Your task to perform on an android device: open wifi settings Image 0: 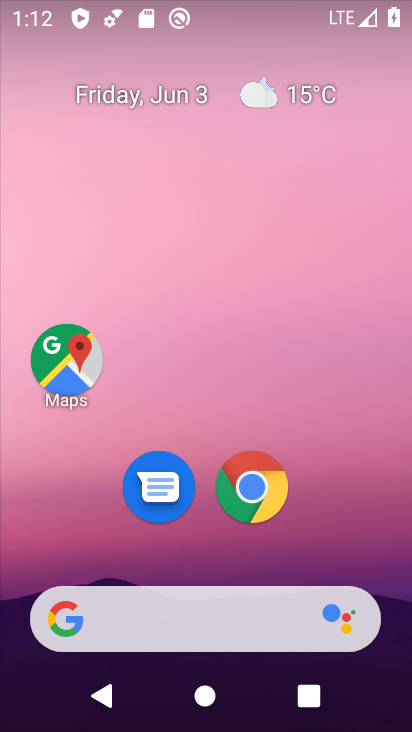
Step 0: drag from (177, 615) to (182, 109)
Your task to perform on an android device: open wifi settings Image 1: 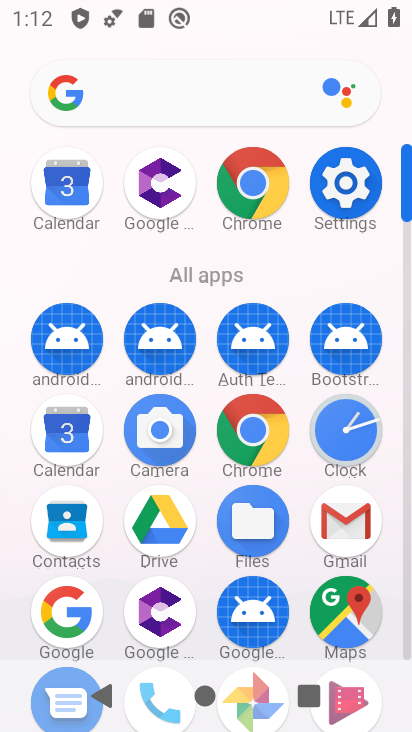
Step 1: click (350, 189)
Your task to perform on an android device: open wifi settings Image 2: 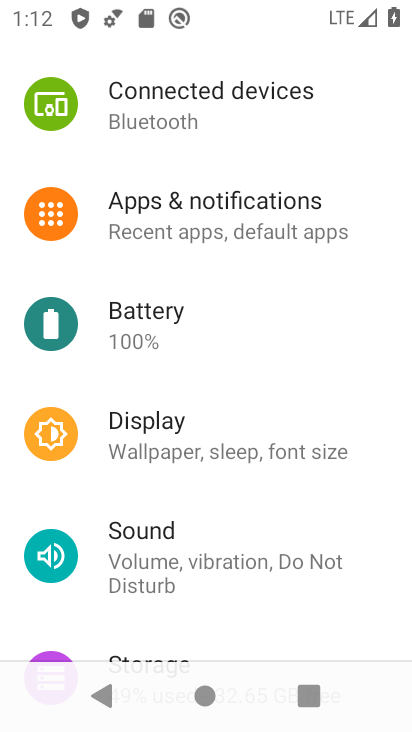
Step 2: drag from (282, 162) to (292, 636)
Your task to perform on an android device: open wifi settings Image 3: 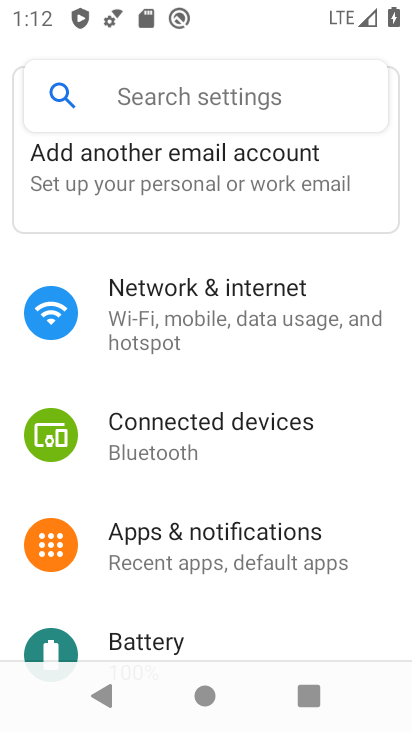
Step 3: click (224, 324)
Your task to perform on an android device: open wifi settings Image 4: 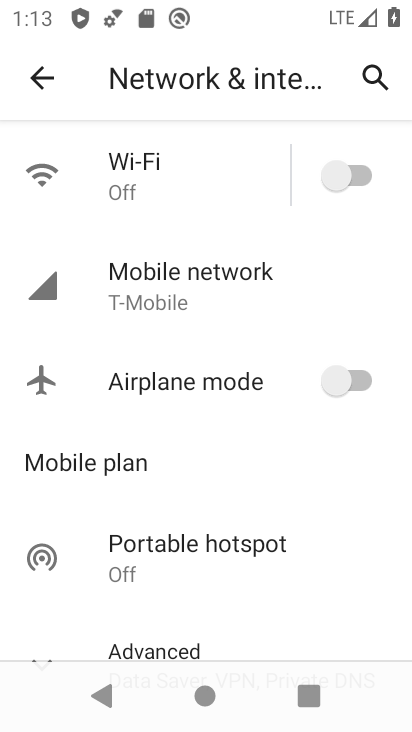
Step 4: click (130, 189)
Your task to perform on an android device: open wifi settings Image 5: 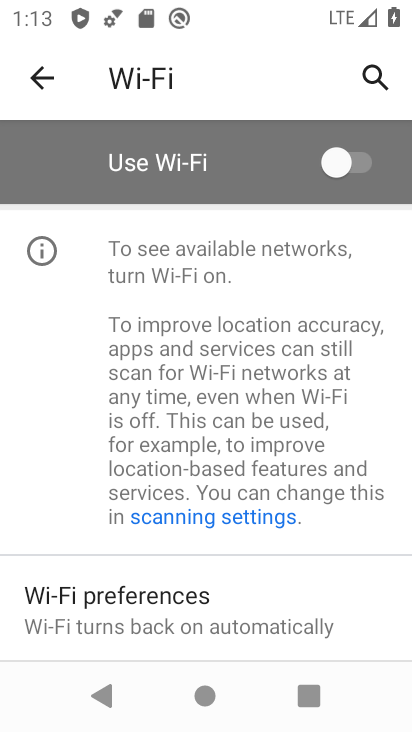
Step 5: task complete